Your task to perform on an android device: Play the last video I watched on Youtube Image 0: 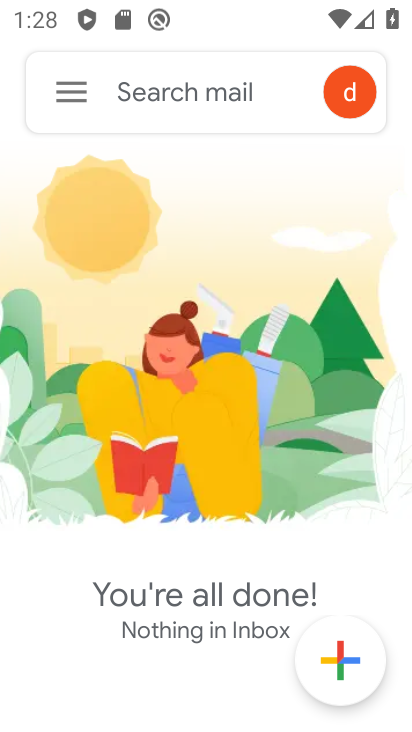
Step 0: press home button
Your task to perform on an android device: Play the last video I watched on Youtube Image 1: 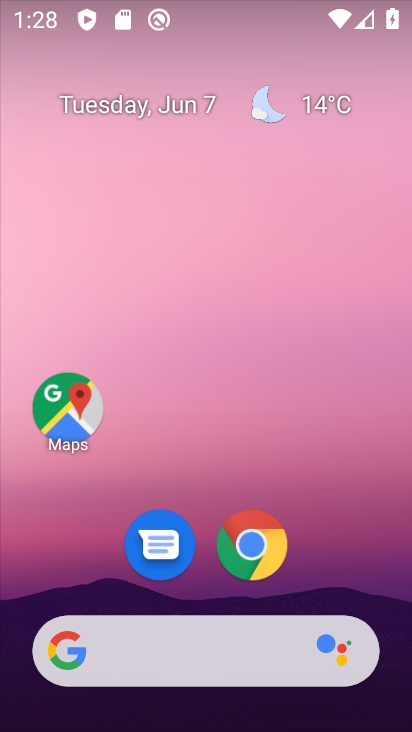
Step 1: drag from (341, 565) to (231, 109)
Your task to perform on an android device: Play the last video I watched on Youtube Image 2: 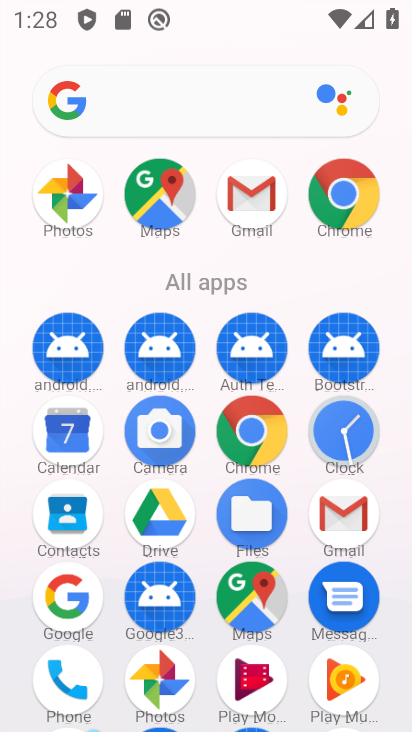
Step 2: drag from (222, 632) to (216, 311)
Your task to perform on an android device: Play the last video I watched on Youtube Image 3: 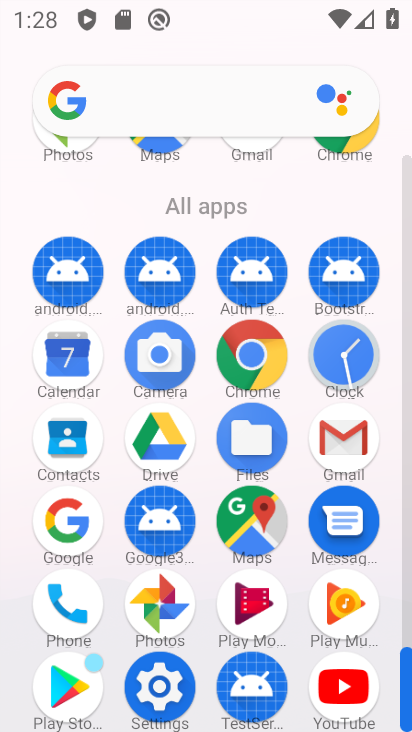
Step 3: click (348, 683)
Your task to perform on an android device: Play the last video I watched on Youtube Image 4: 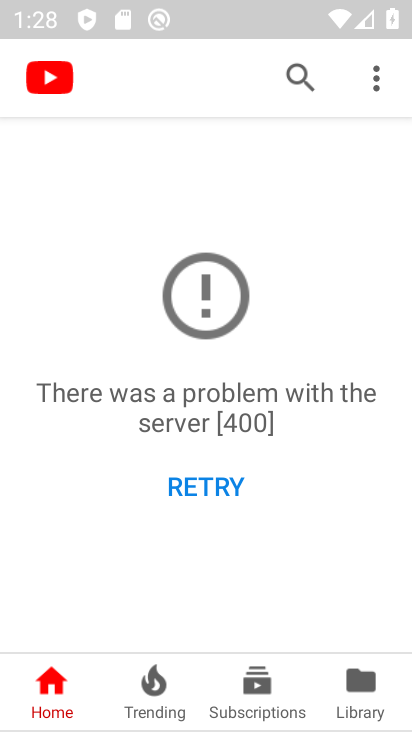
Step 4: click (367, 682)
Your task to perform on an android device: Play the last video I watched on Youtube Image 5: 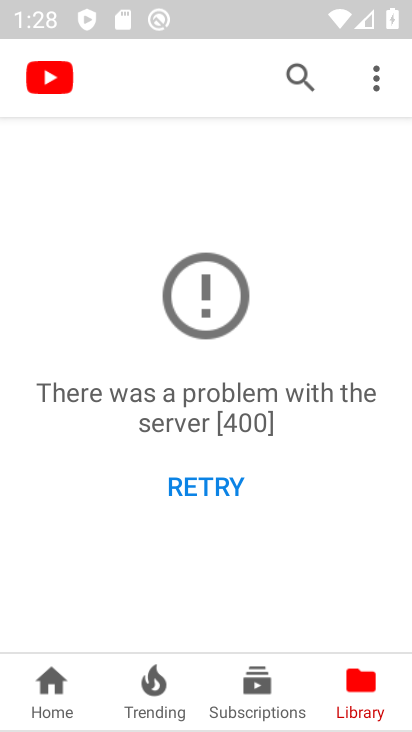
Step 5: click (365, 691)
Your task to perform on an android device: Play the last video I watched on Youtube Image 6: 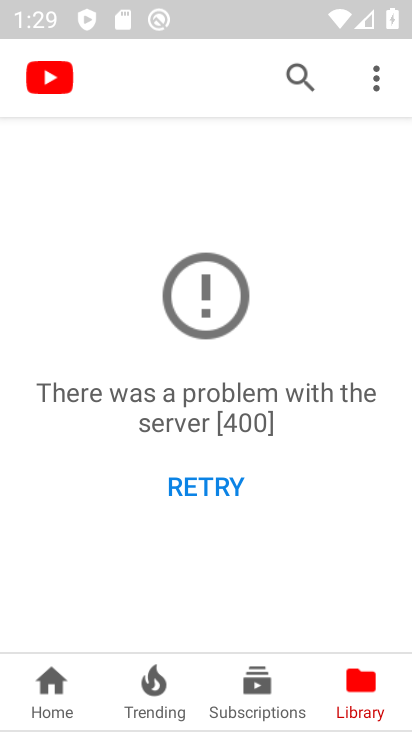
Step 6: task complete